Your task to perform on an android device: change your default location settings in chrome Image 0: 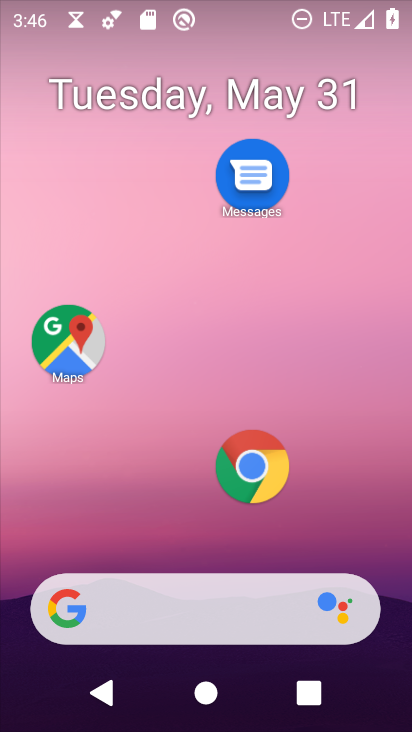
Step 0: click (253, 475)
Your task to perform on an android device: change your default location settings in chrome Image 1: 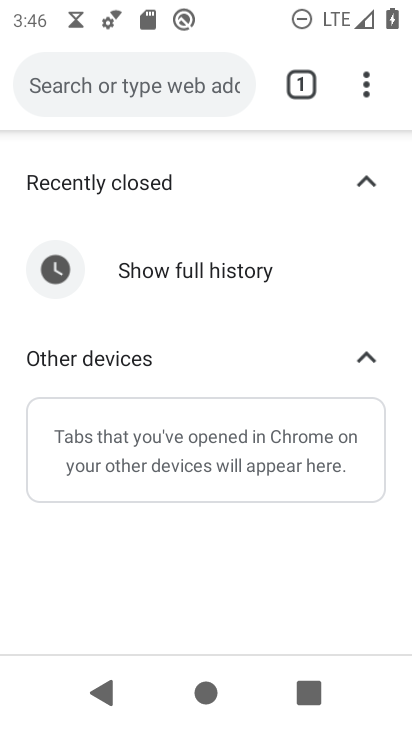
Step 1: drag from (377, 76) to (120, 512)
Your task to perform on an android device: change your default location settings in chrome Image 2: 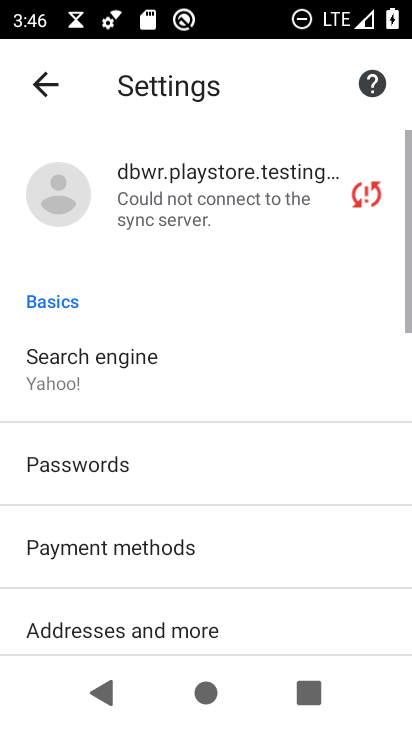
Step 2: drag from (127, 607) to (214, 51)
Your task to perform on an android device: change your default location settings in chrome Image 3: 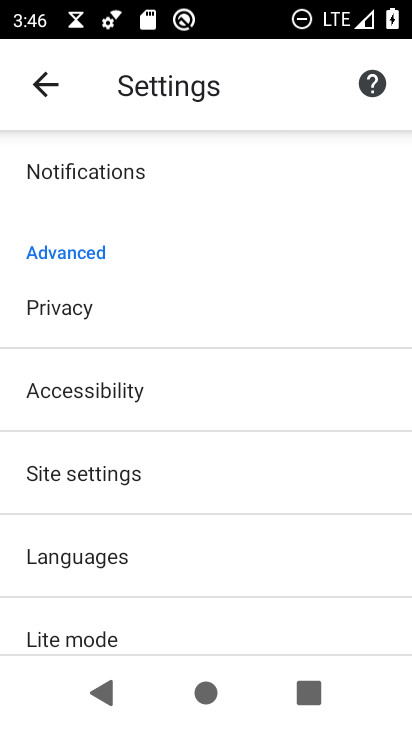
Step 3: drag from (188, 590) to (251, 222)
Your task to perform on an android device: change your default location settings in chrome Image 4: 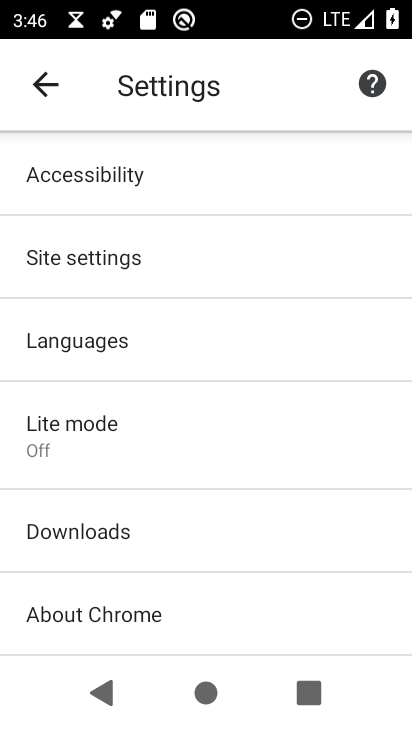
Step 4: drag from (161, 593) to (258, 154)
Your task to perform on an android device: change your default location settings in chrome Image 5: 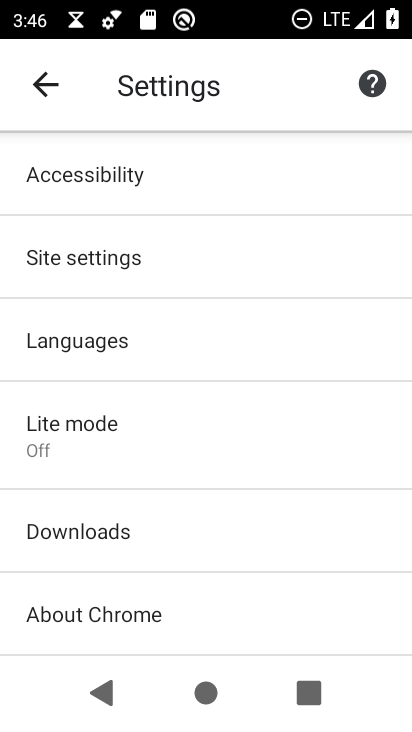
Step 5: click (98, 257)
Your task to perform on an android device: change your default location settings in chrome Image 6: 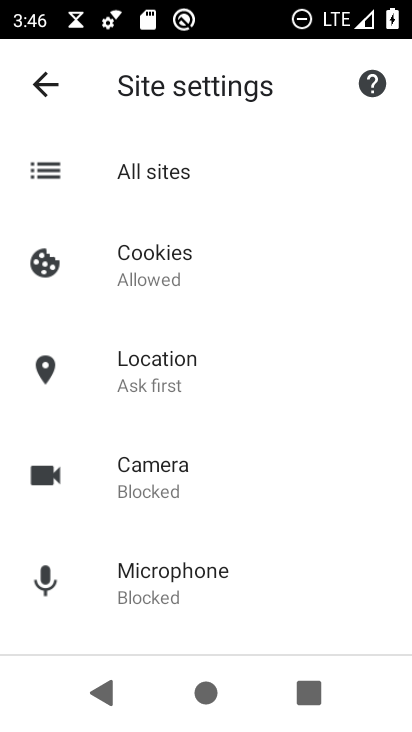
Step 6: click (155, 373)
Your task to perform on an android device: change your default location settings in chrome Image 7: 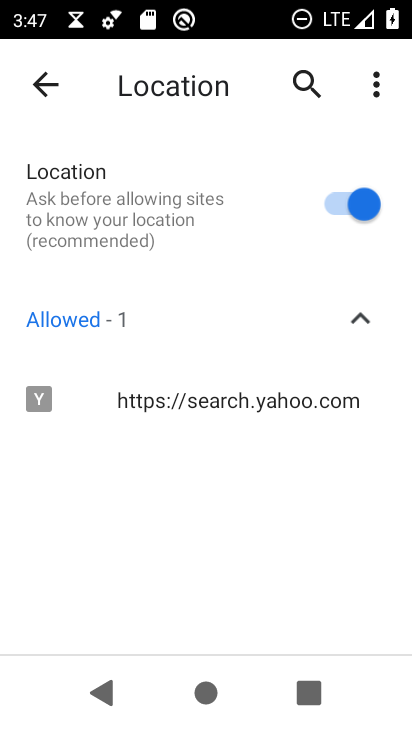
Step 7: click (334, 203)
Your task to perform on an android device: change your default location settings in chrome Image 8: 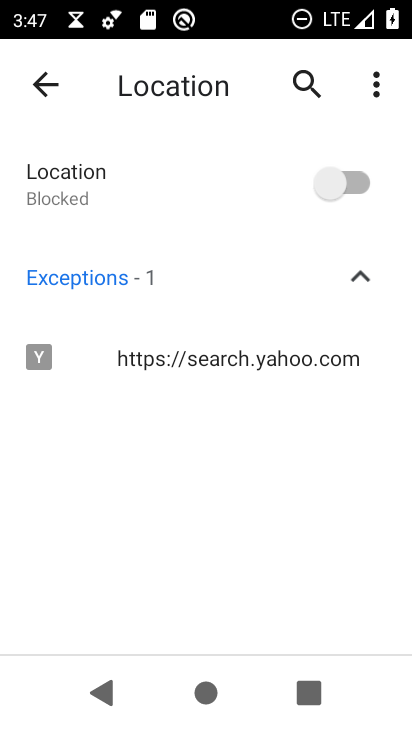
Step 8: task complete